Your task to perform on an android device: turn off wifi Image 0: 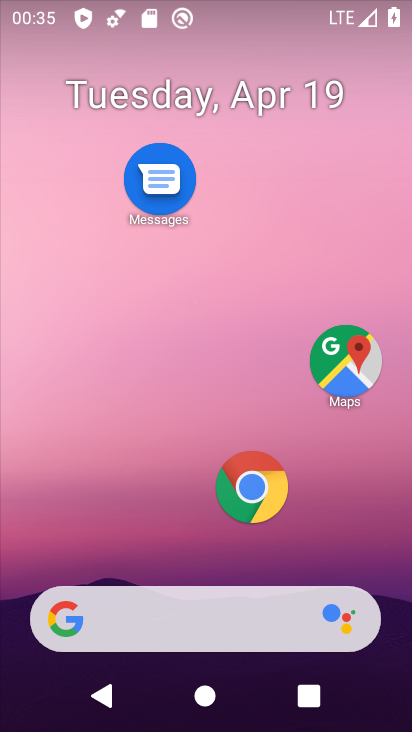
Step 0: drag from (170, 534) to (383, 471)
Your task to perform on an android device: turn off wifi Image 1: 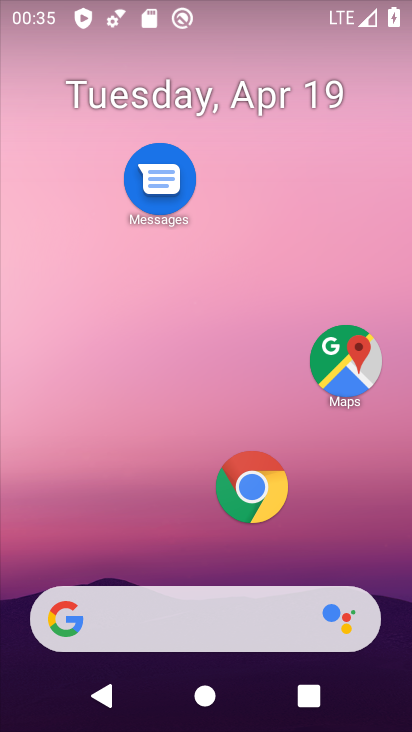
Step 1: drag from (150, 558) to (177, 5)
Your task to perform on an android device: turn off wifi Image 2: 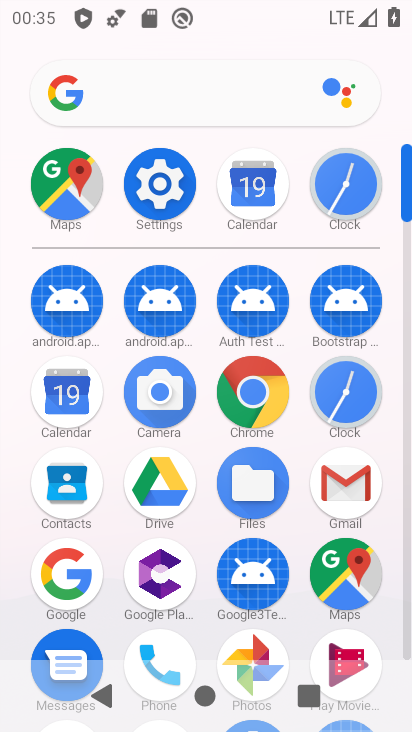
Step 2: click (160, 187)
Your task to perform on an android device: turn off wifi Image 3: 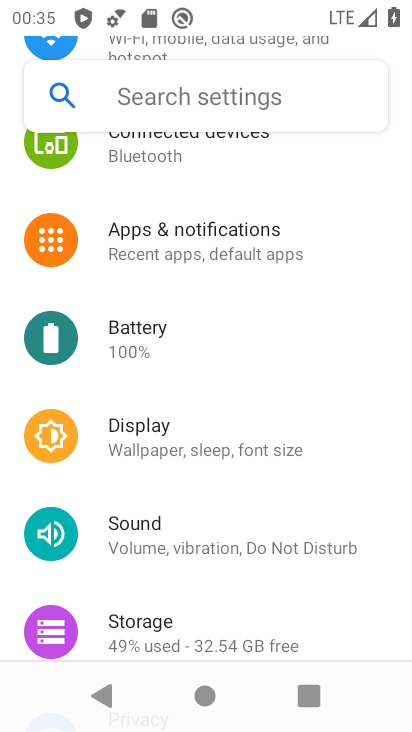
Step 3: drag from (225, 193) to (208, 578)
Your task to perform on an android device: turn off wifi Image 4: 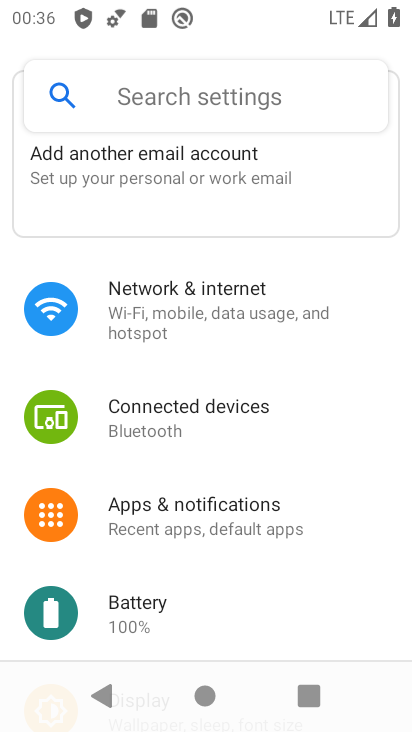
Step 4: click (170, 296)
Your task to perform on an android device: turn off wifi Image 5: 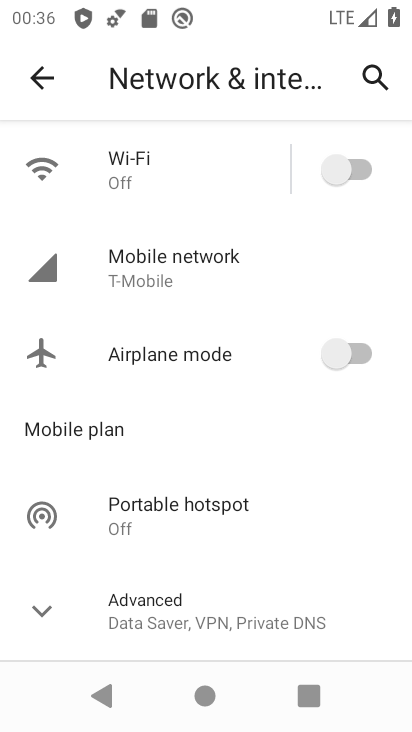
Step 5: task complete